Your task to perform on an android device: all mails in gmail Image 0: 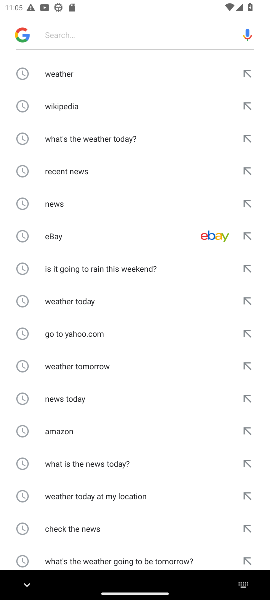
Step 0: press home button
Your task to perform on an android device: all mails in gmail Image 1: 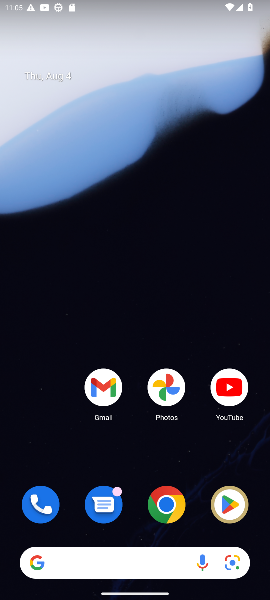
Step 1: click (102, 383)
Your task to perform on an android device: all mails in gmail Image 2: 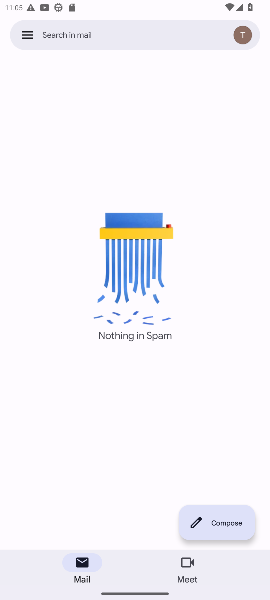
Step 2: click (26, 34)
Your task to perform on an android device: all mails in gmail Image 3: 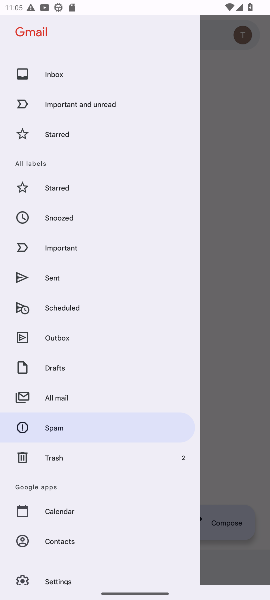
Step 3: click (69, 397)
Your task to perform on an android device: all mails in gmail Image 4: 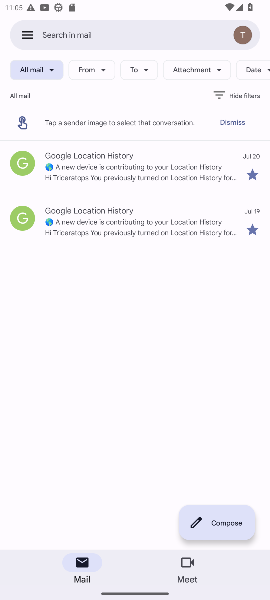
Step 4: task complete